Your task to perform on an android device: turn on sleep mode Image 0: 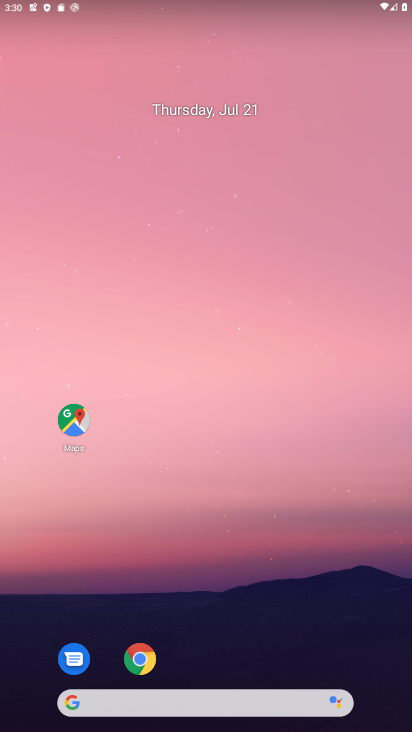
Step 0: drag from (228, 595) to (218, 64)
Your task to perform on an android device: turn on sleep mode Image 1: 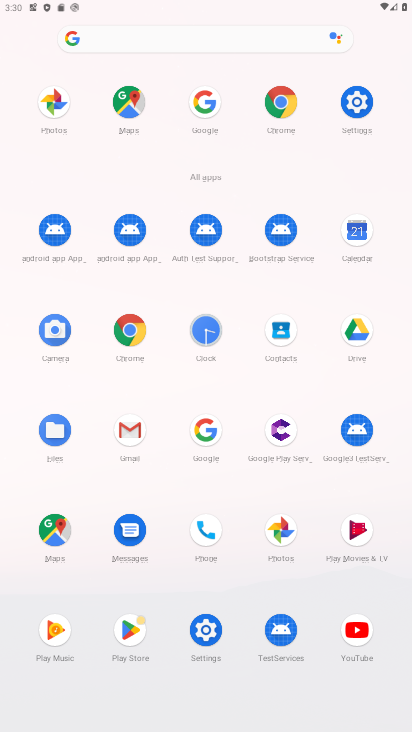
Step 1: click (356, 105)
Your task to perform on an android device: turn on sleep mode Image 2: 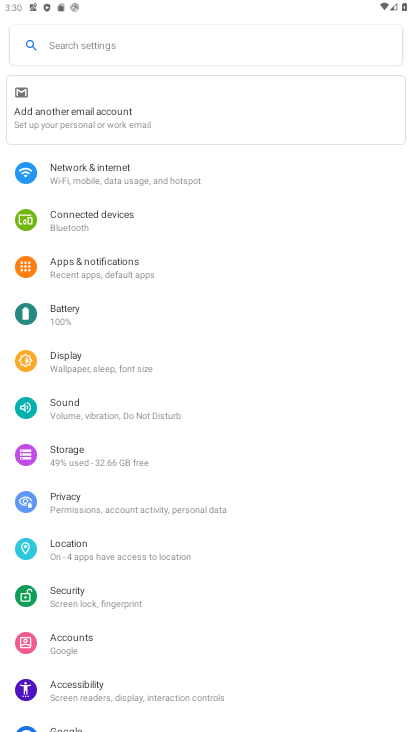
Step 2: click (65, 361)
Your task to perform on an android device: turn on sleep mode Image 3: 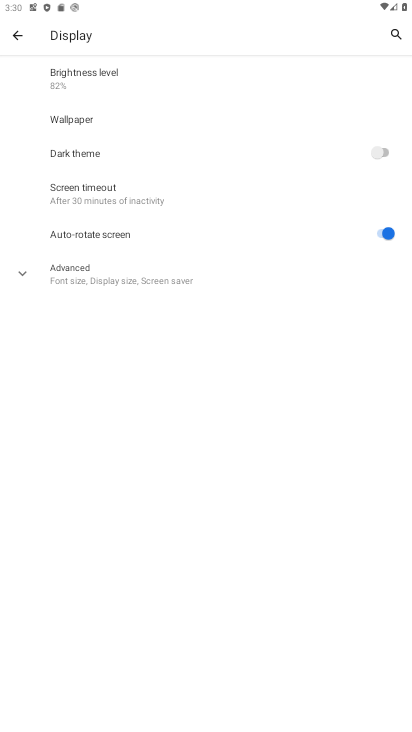
Step 3: click (61, 270)
Your task to perform on an android device: turn on sleep mode Image 4: 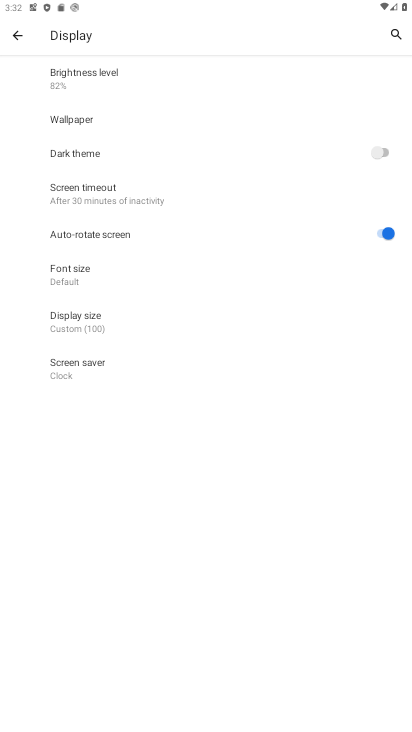
Step 4: task complete